Your task to perform on an android device: toggle notifications settings in the gmail app Image 0: 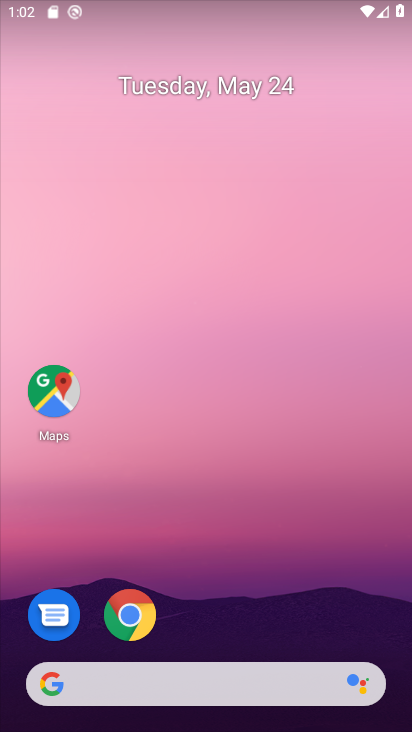
Step 0: drag from (256, 466) to (256, 123)
Your task to perform on an android device: toggle notifications settings in the gmail app Image 1: 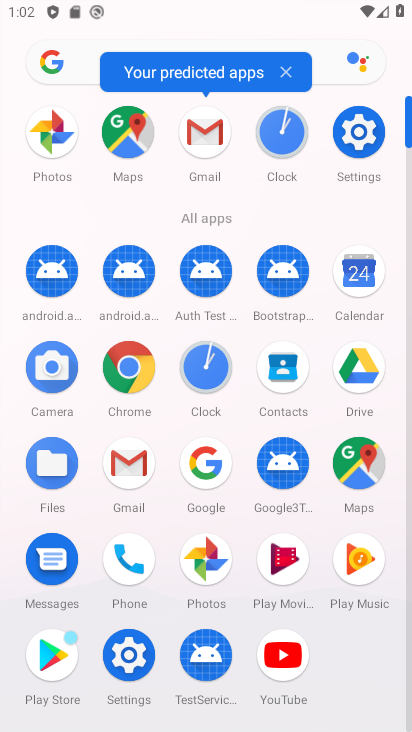
Step 1: click (209, 129)
Your task to perform on an android device: toggle notifications settings in the gmail app Image 2: 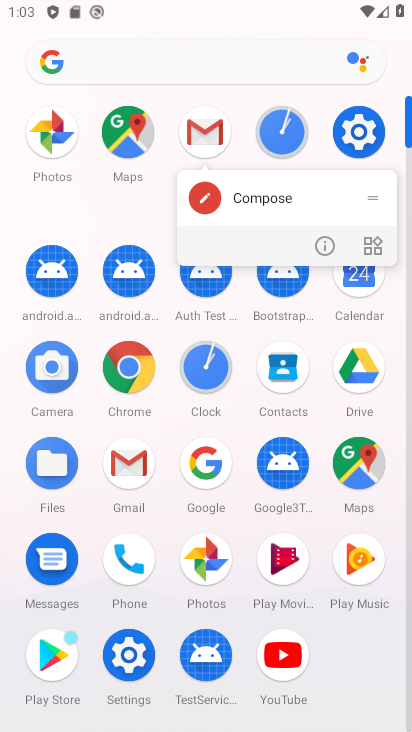
Step 2: click (328, 249)
Your task to perform on an android device: toggle notifications settings in the gmail app Image 3: 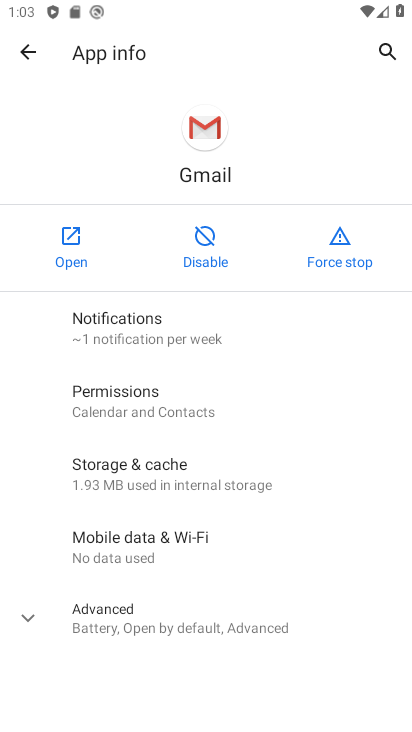
Step 3: click (154, 328)
Your task to perform on an android device: toggle notifications settings in the gmail app Image 4: 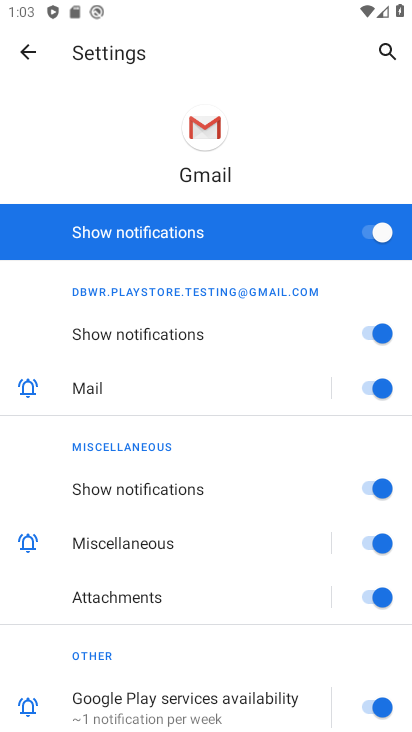
Step 4: click (372, 232)
Your task to perform on an android device: toggle notifications settings in the gmail app Image 5: 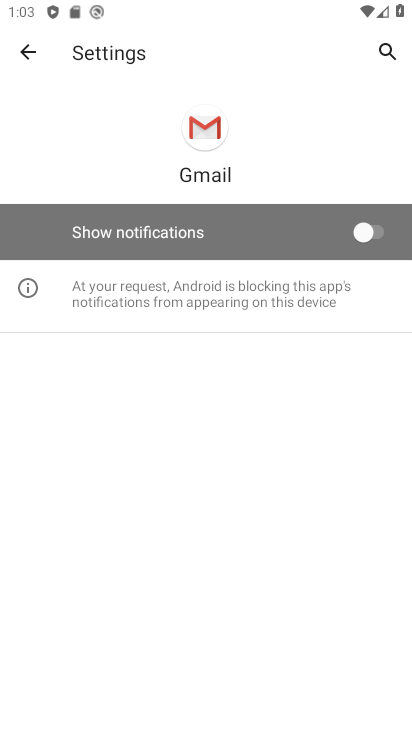
Step 5: task complete